Your task to perform on an android device: set the stopwatch Image 0: 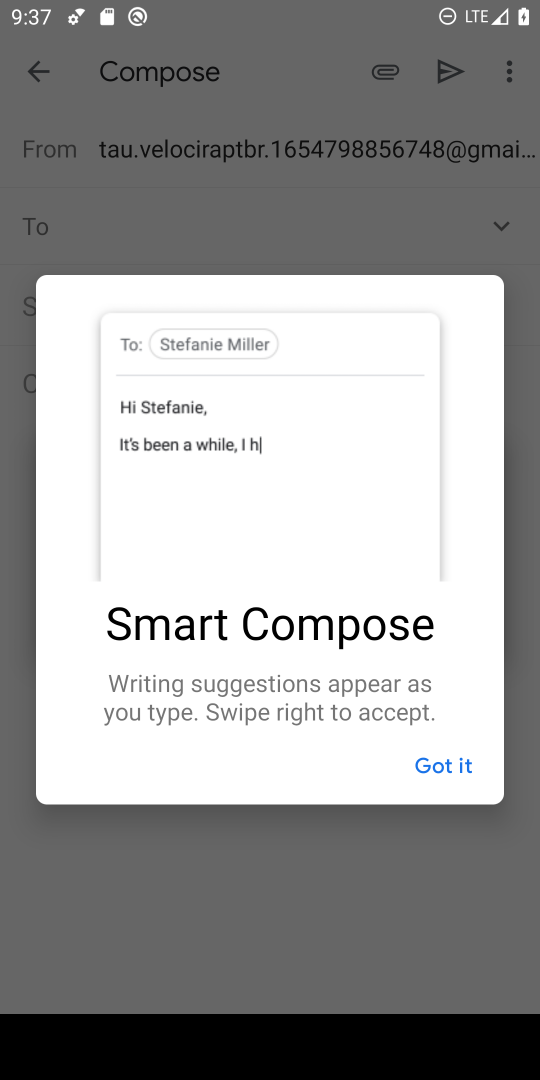
Step 0: press home button
Your task to perform on an android device: set the stopwatch Image 1: 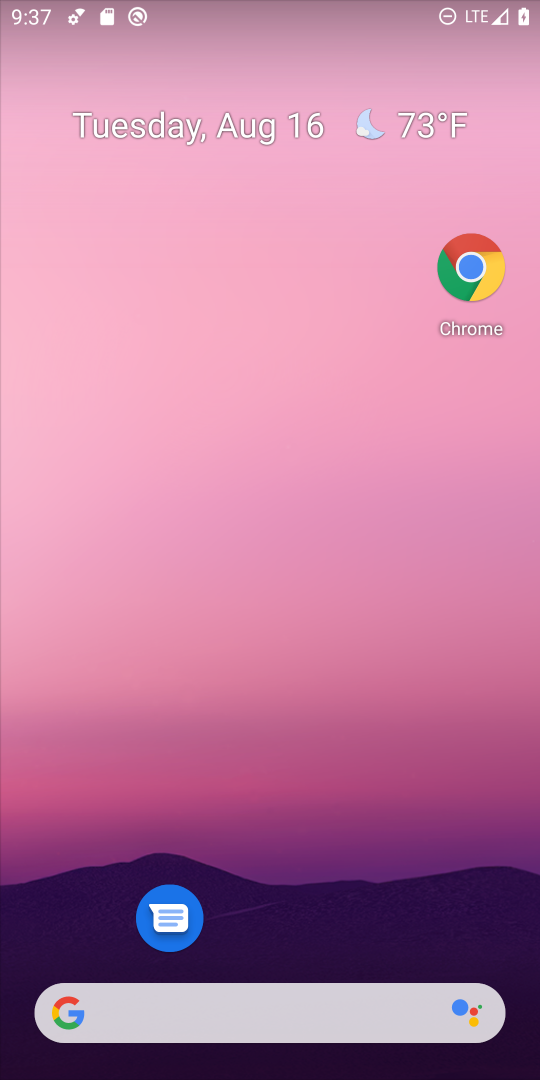
Step 1: drag from (243, 965) to (302, 324)
Your task to perform on an android device: set the stopwatch Image 2: 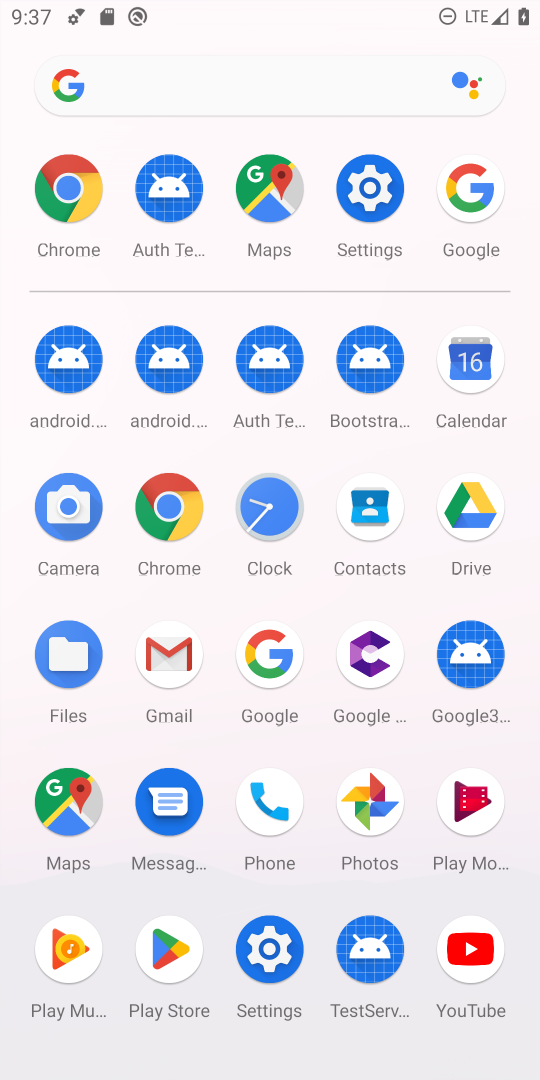
Step 2: click (284, 514)
Your task to perform on an android device: set the stopwatch Image 3: 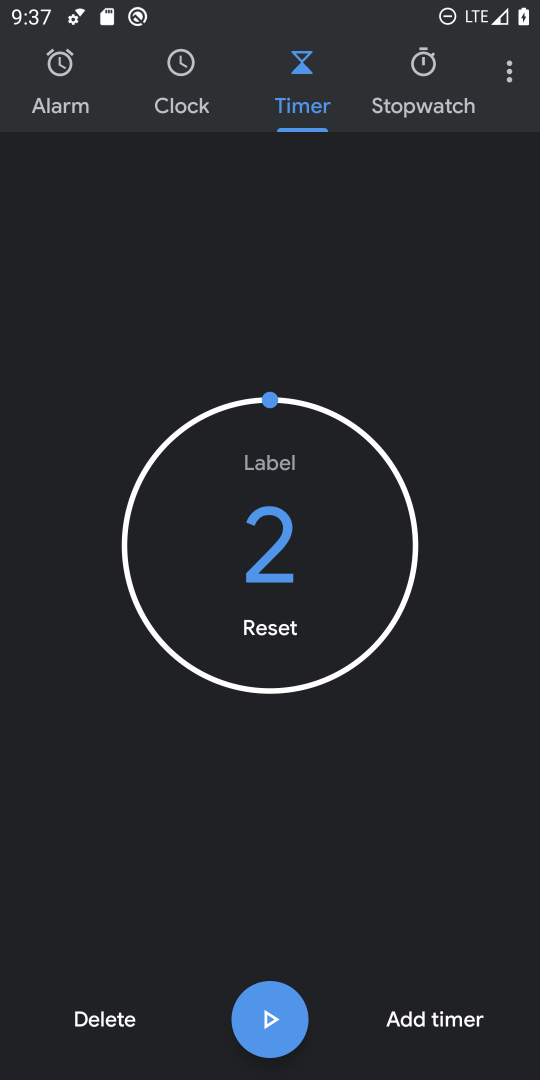
Step 3: click (446, 105)
Your task to perform on an android device: set the stopwatch Image 4: 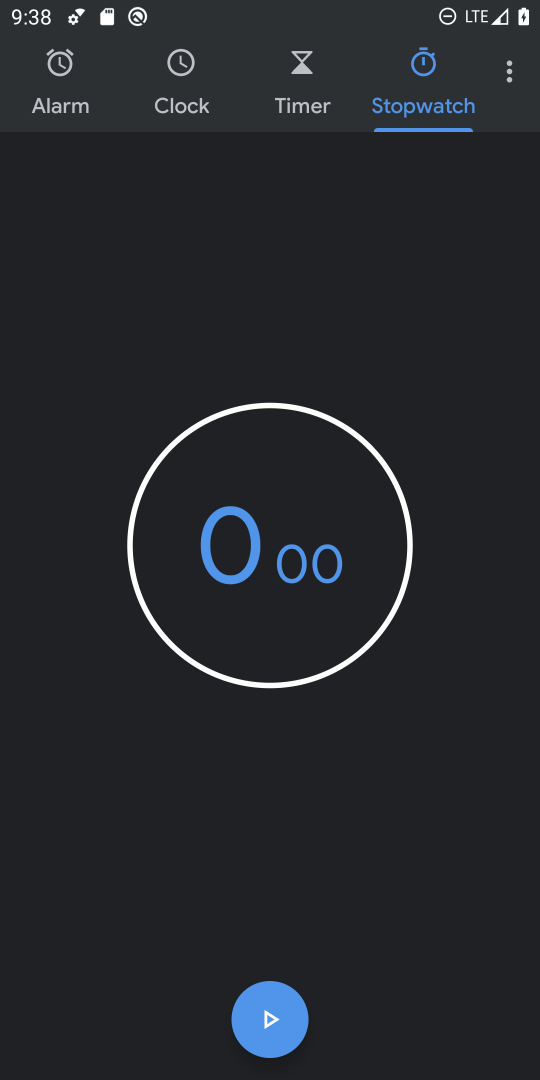
Step 4: click (273, 1053)
Your task to perform on an android device: set the stopwatch Image 5: 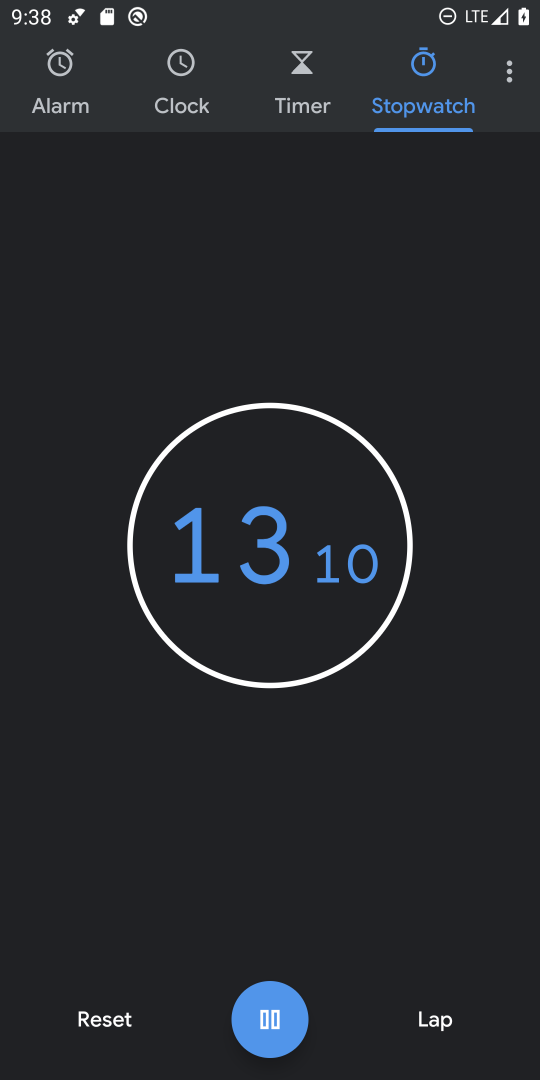
Step 5: task complete